Your task to perform on an android device: Open Google Chrome and open the bookmarks view Image 0: 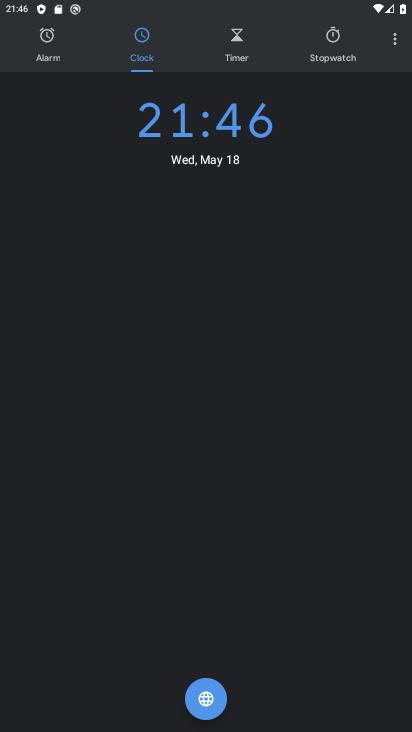
Step 0: press home button
Your task to perform on an android device: Open Google Chrome and open the bookmarks view Image 1: 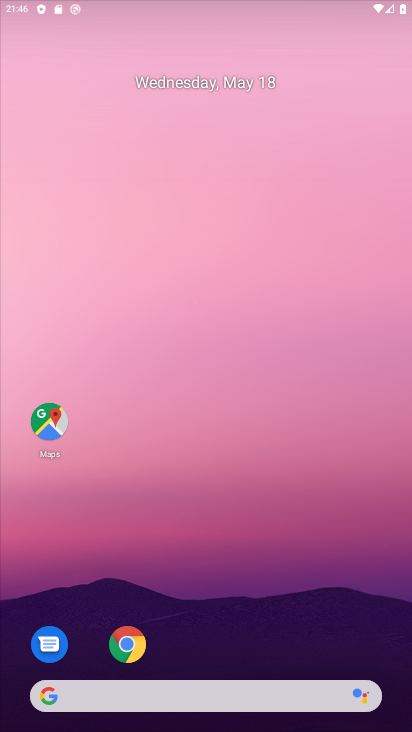
Step 1: drag from (338, 208) to (333, 47)
Your task to perform on an android device: Open Google Chrome and open the bookmarks view Image 2: 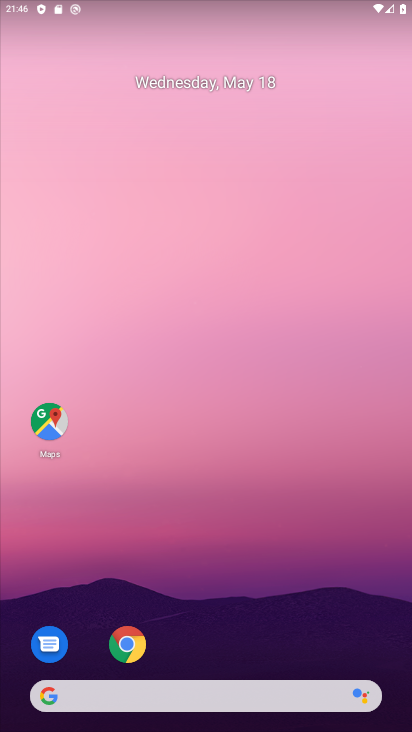
Step 2: drag from (298, 580) to (270, 74)
Your task to perform on an android device: Open Google Chrome and open the bookmarks view Image 3: 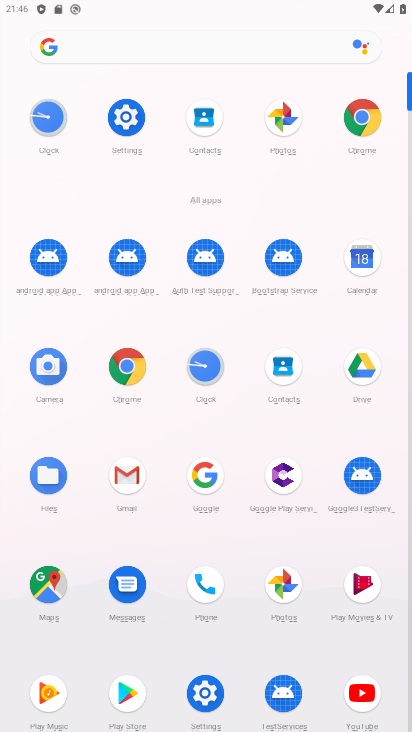
Step 3: click (133, 365)
Your task to perform on an android device: Open Google Chrome and open the bookmarks view Image 4: 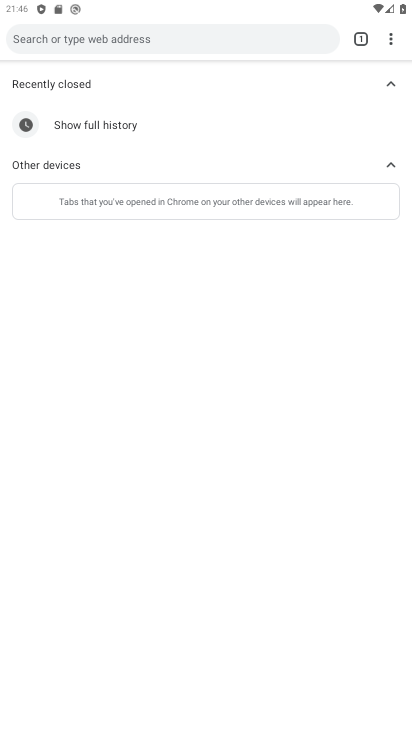
Step 4: task complete